Your task to perform on an android device: add a contact Image 0: 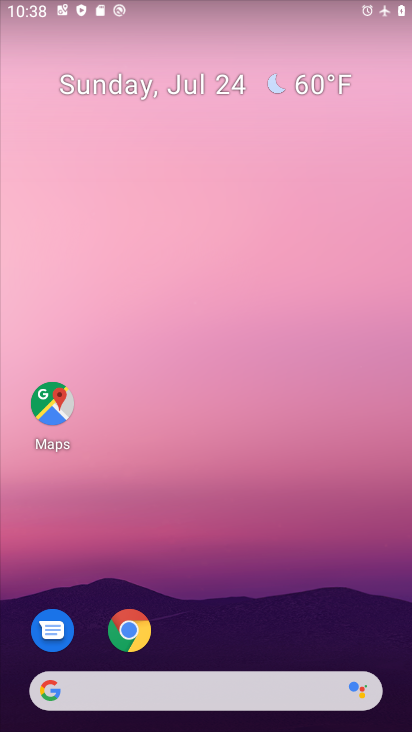
Step 0: drag from (241, 645) to (233, 28)
Your task to perform on an android device: add a contact Image 1: 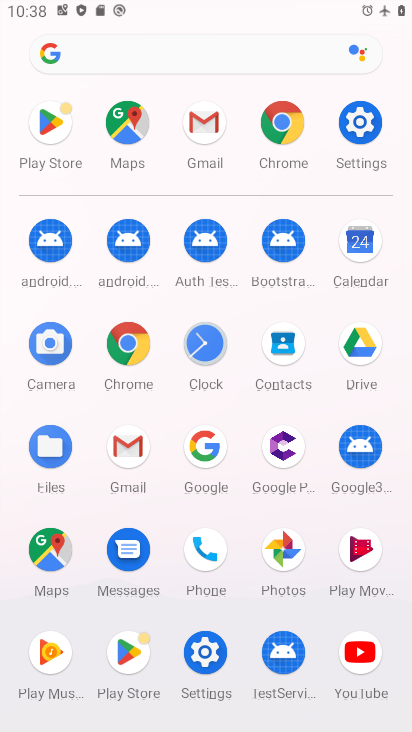
Step 1: click (293, 374)
Your task to perform on an android device: add a contact Image 2: 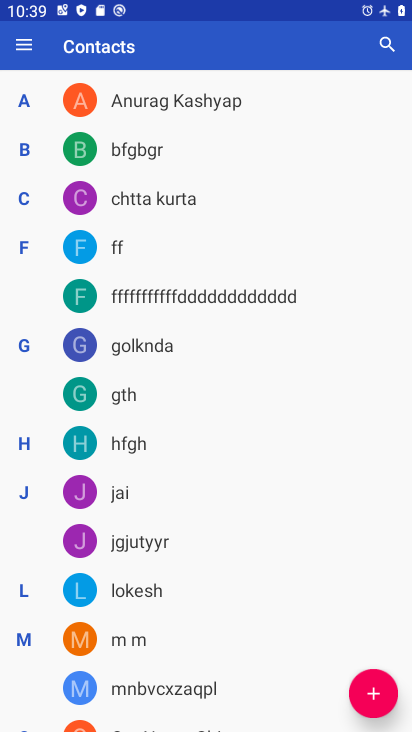
Step 2: click (368, 688)
Your task to perform on an android device: add a contact Image 3: 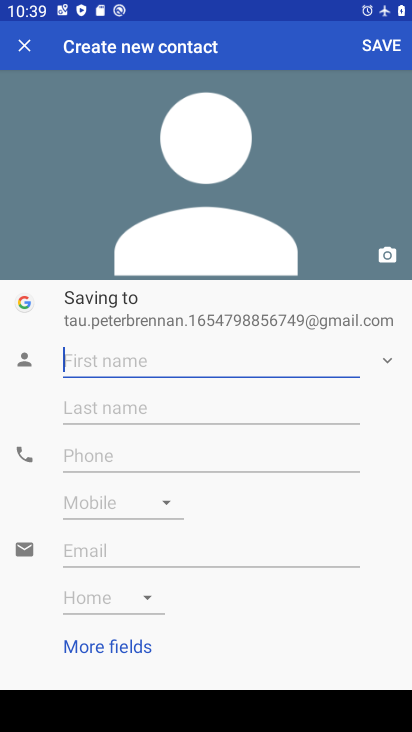
Step 3: type "bhringraj"
Your task to perform on an android device: add a contact Image 4: 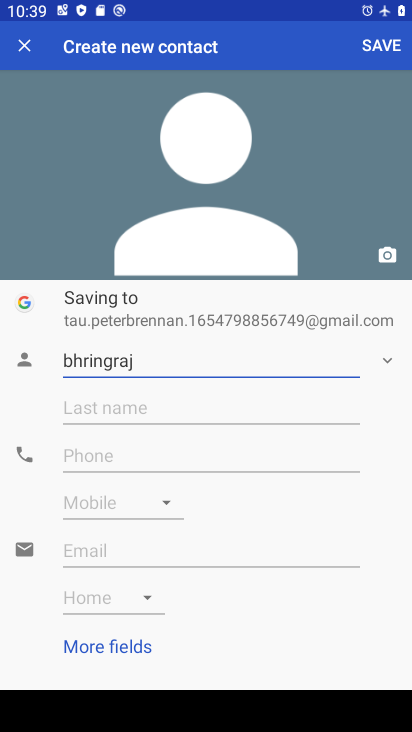
Step 4: click (373, 50)
Your task to perform on an android device: add a contact Image 5: 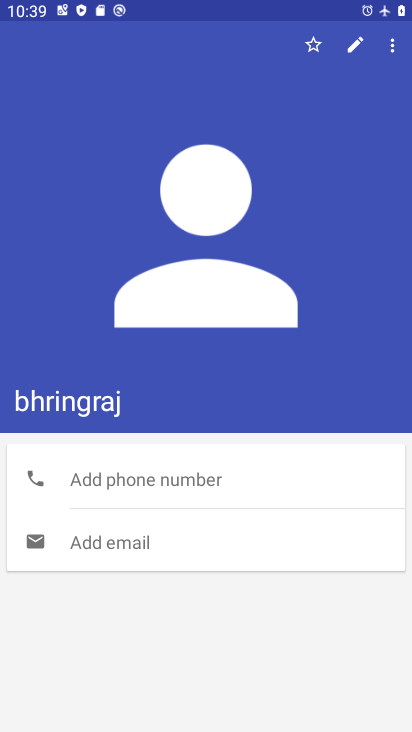
Step 5: task complete